Your task to perform on an android device: Toggle the flashlight Image 0: 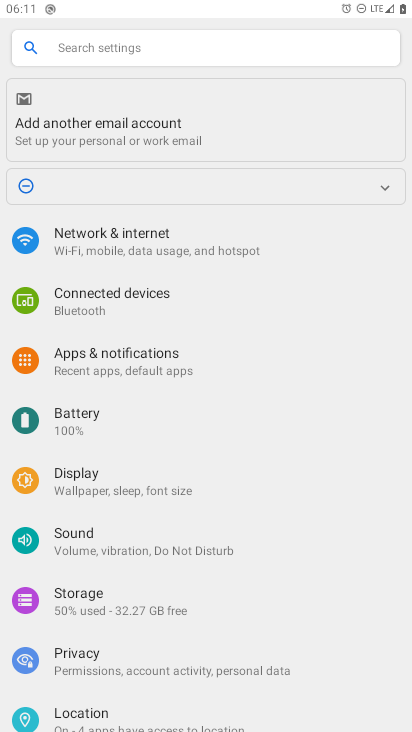
Step 0: press home button
Your task to perform on an android device: Toggle the flashlight Image 1: 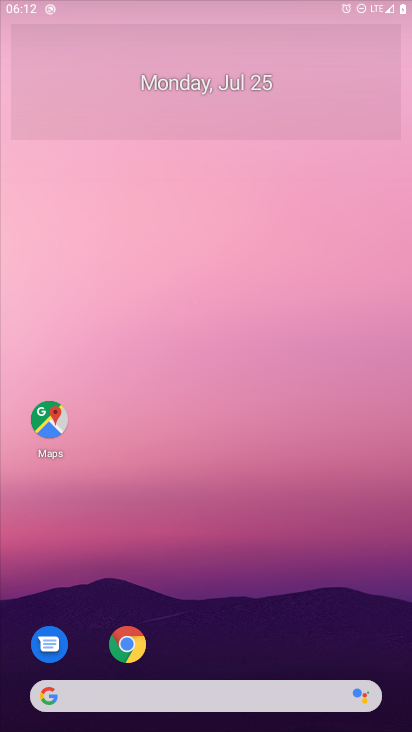
Step 1: task complete